Your task to perform on an android device: toggle notifications settings in the gmail app Image 0: 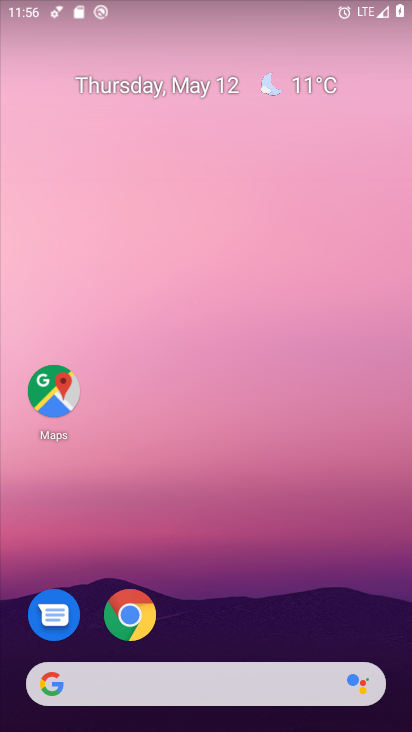
Step 0: drag from (293, 594) to (319, 79)
Your task to perform on an android device: toggle notifications settings in the gmail app Image 1: 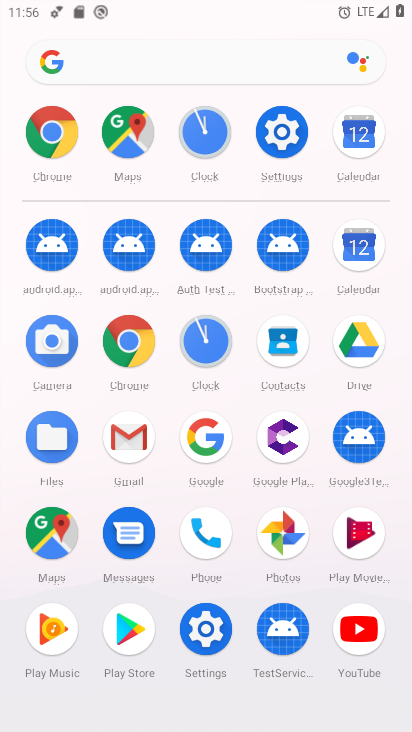
Step 1: click (120, 430)
Your task to perform on an android device: toggle notifications settings in the gmail app Image 2: 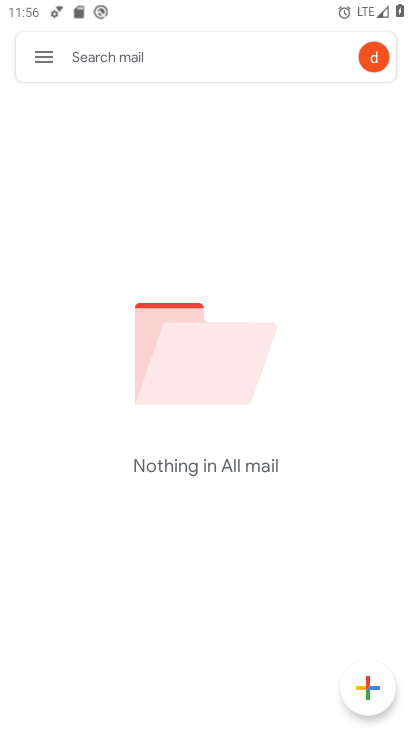
Step 2: click (51, 54)
Your task to perform on an android device: toggle notifications settings in the gmail app Image 3: 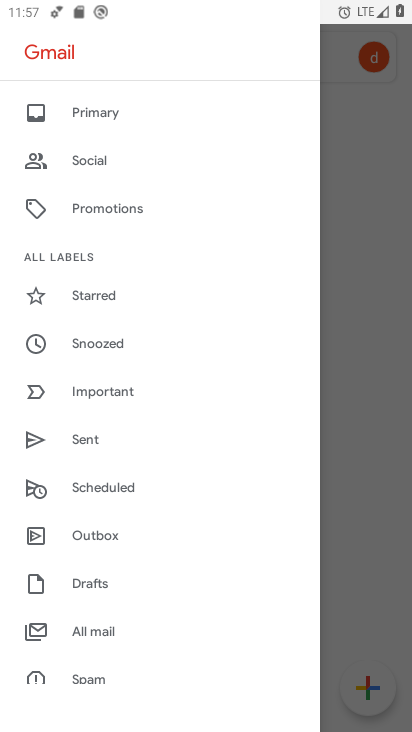
Step 3: drag from (138, 618) to (210, 418)
Your task to perform on an android device: toggle notifications settings in the gmail app Image 4: 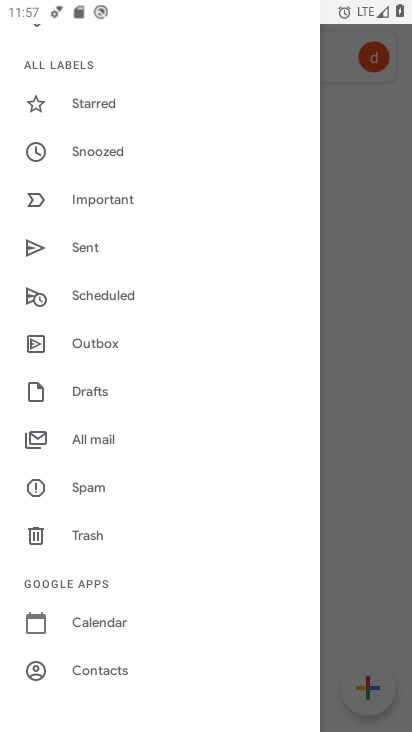
Step 4: drag from (123, 599) to (191, 400)
Your task to perform on an android device: toggle notifications settings in the gmail app Image 5: 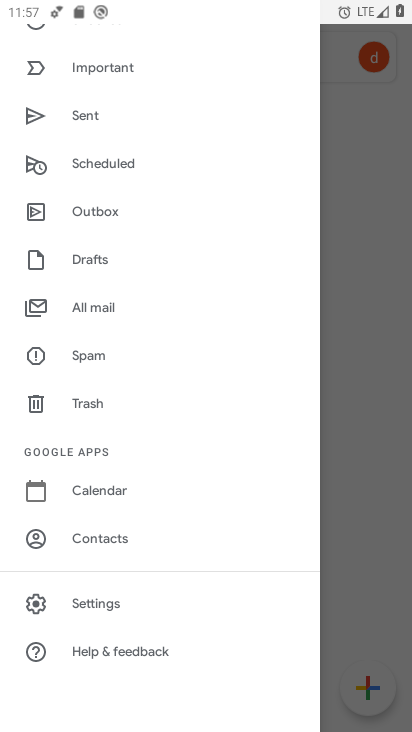
Step 5: click (113, 601)
Your task to perform on an android device: toggle notifications settings in the gmail app Image 6: 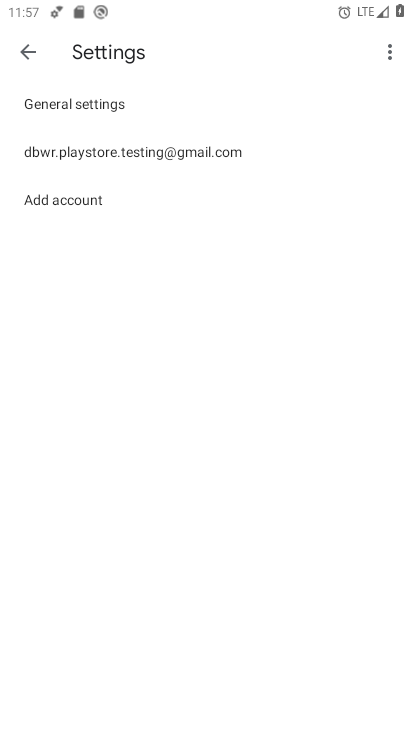
Step 6: click (187, 137)
Your task to perform on an android device: toggle notifications settings in the gmail app Image 7: 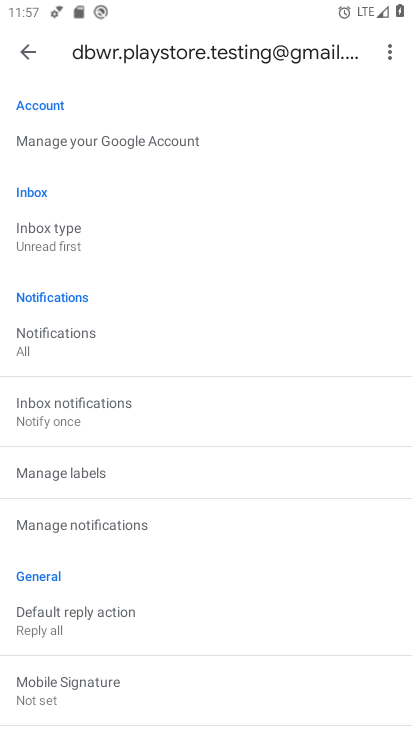
Step 7: click (123, 520)
Your task to perform on an android device: toggle notifications settings in the gmail app Image 8: 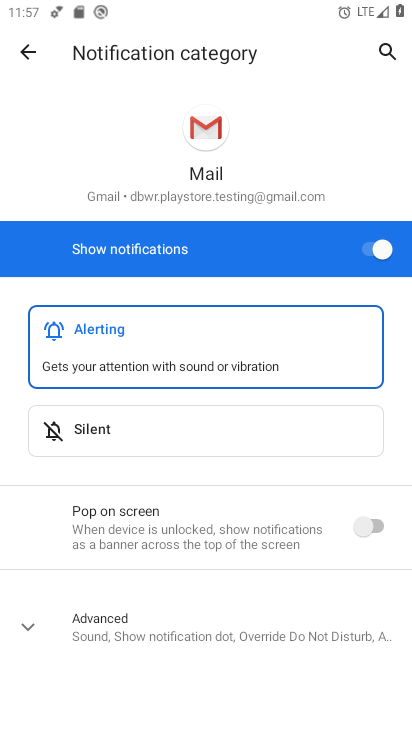
Step 8: click (372, 245)
Your task to perform on an android device: toggle notifications settings in the gmail app Image 9: 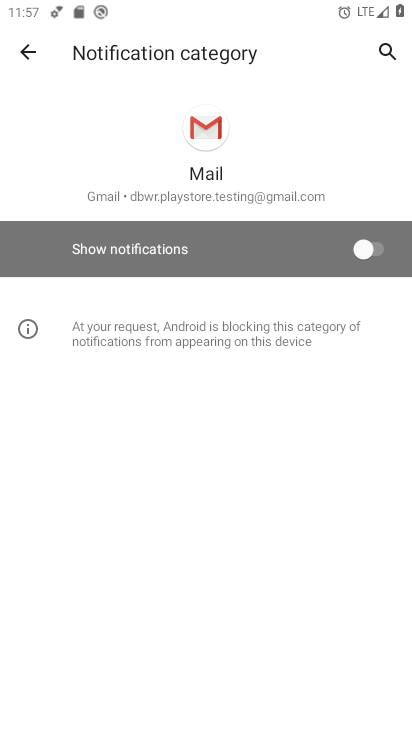
Step 9: task complete